Your task to perform on an android device: Search for the best pizza restaurants on Maps Image 0: 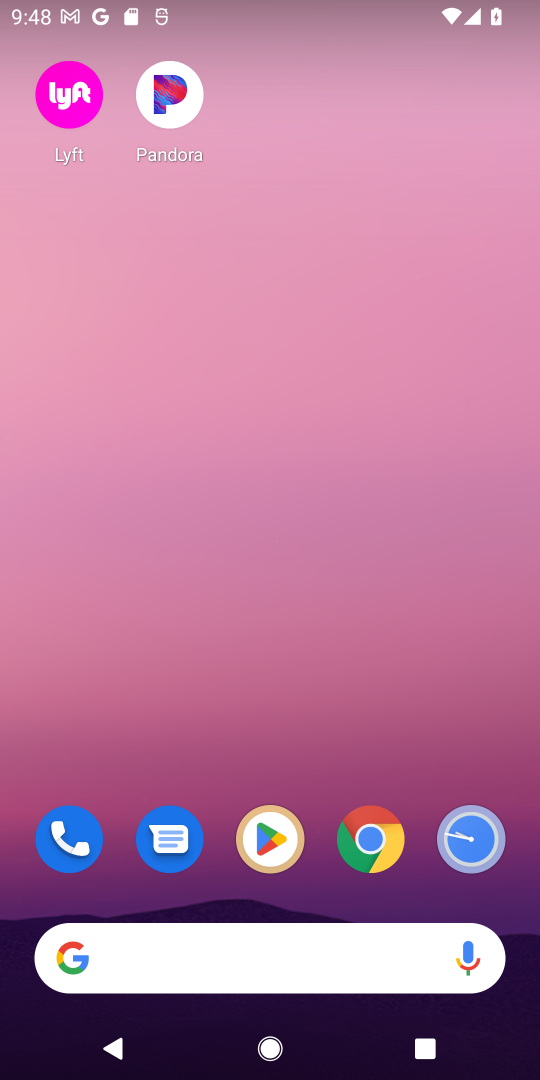
Step 0: press home button
Your task to perform on an android device: Search for the best pizza restaurants on Maps Image 1: 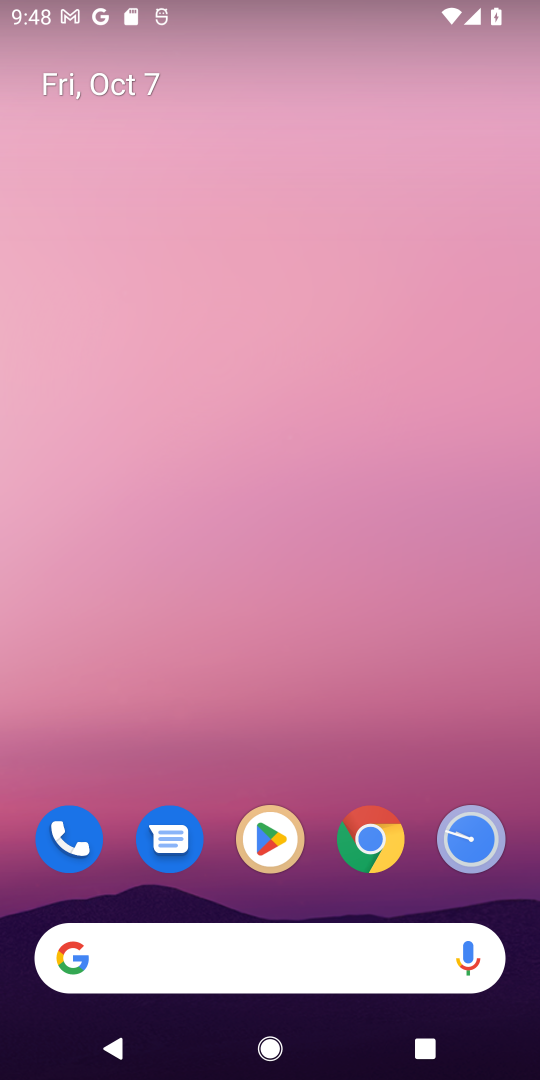
Step 1: click (373, 844)
Your task to perform on an android device: Search for the best pizza restaurants on Maps Image 2: 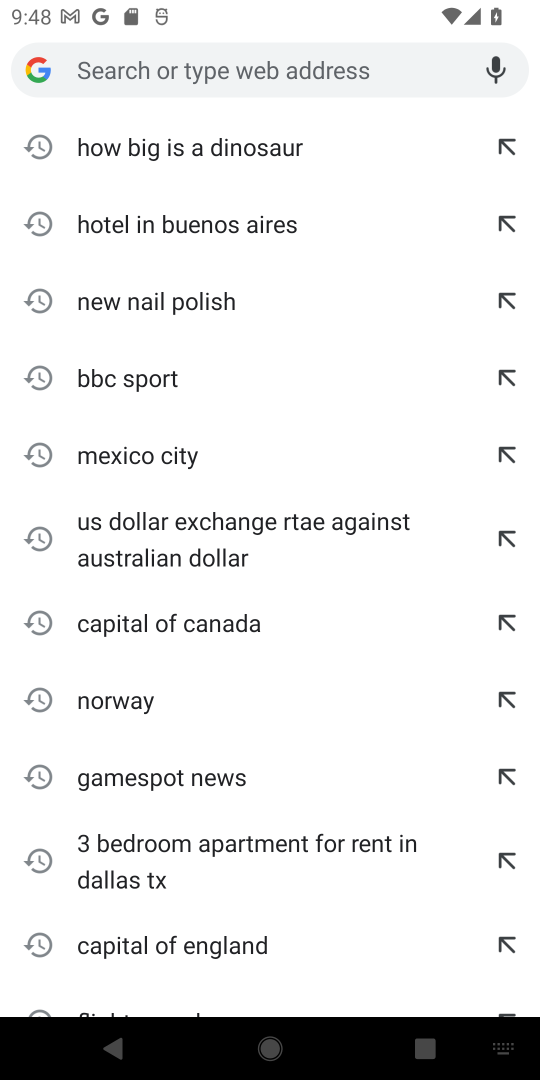
Step 2: type "best pizza resturant on maps"
Your task to perform on an android device: Search for the best pizza restaurants on Maps Image 3: 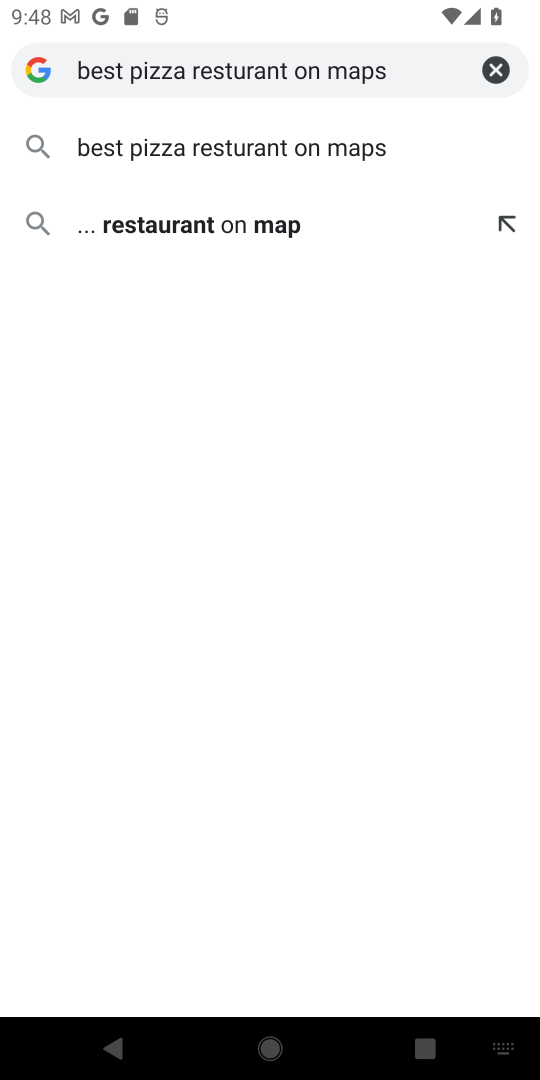
Step 3: click (205, 227)
Your task to perform on an android device: Search for the best pizza restaurants on Maps Image 4: 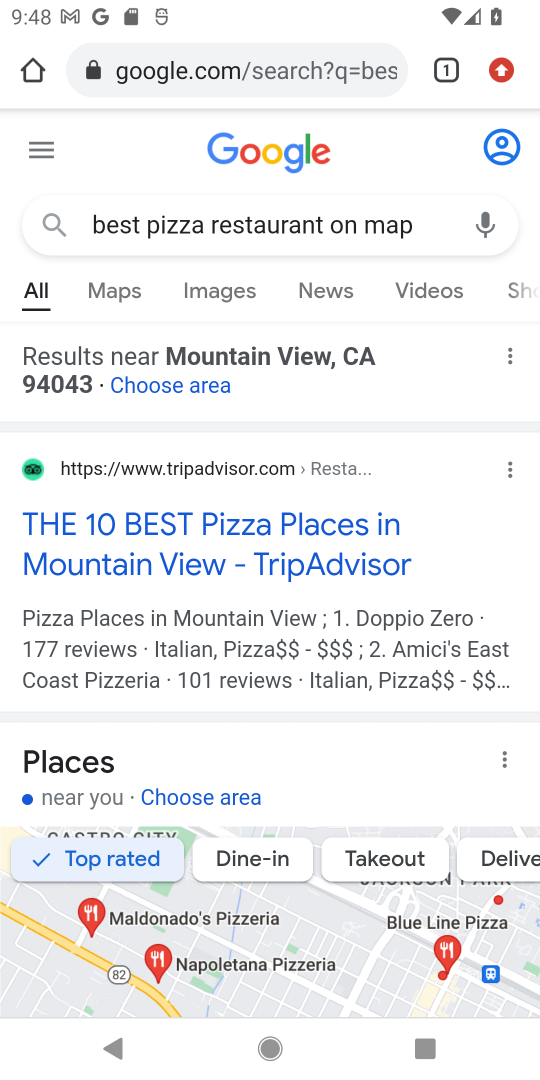
Step 4: click (267, 962)
Your task to perform on an android device: Search for the best pizza restaurants on Maps Image 5: 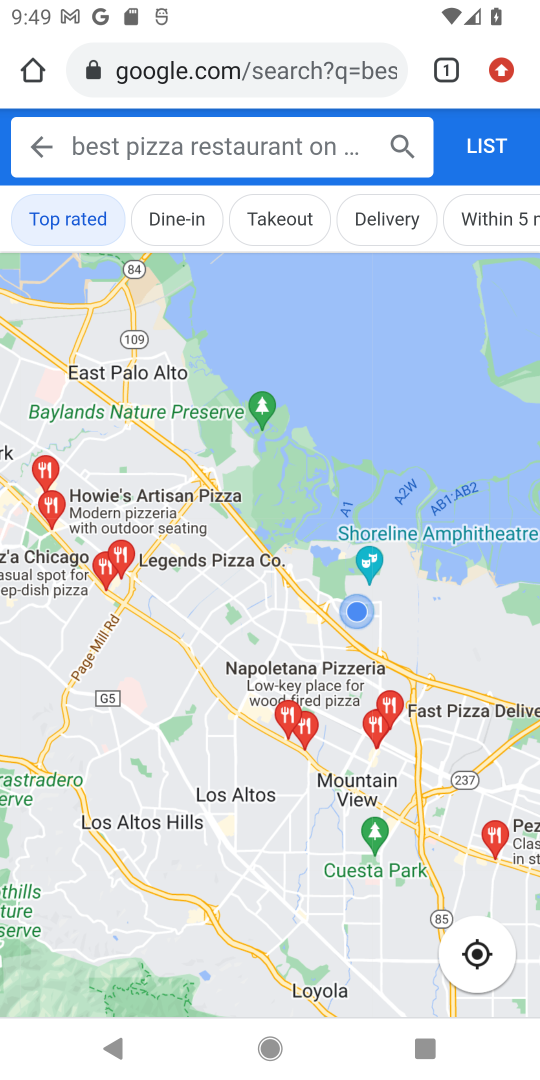
Step 5: task complete